Your task to perform on an android device: Go to Wikipedia Image 0: 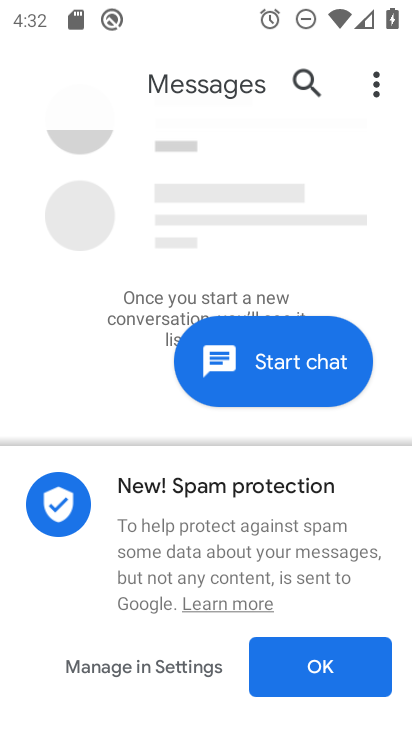
Step 0: press home button
Your task to perform on an android device: Go to Wikipedia Image 1: 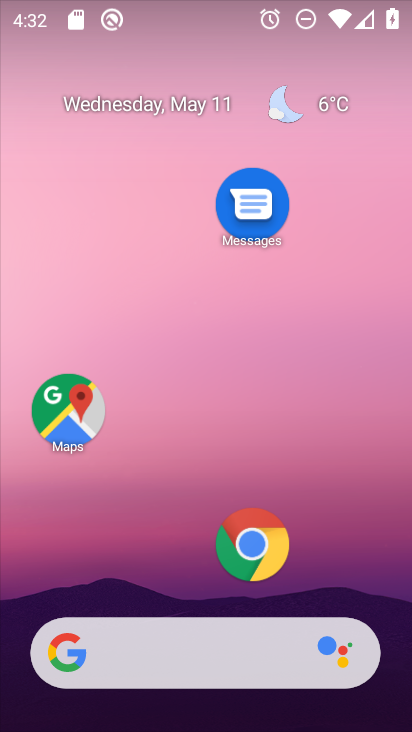
Step 1: click (258, 544)
Your task to perform on an android device: Go to Wikipedia Image 2: 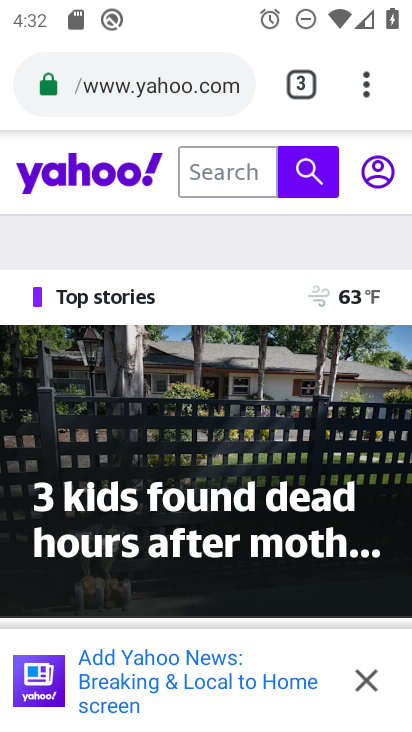
Step 2: click (293, 84)
Your task to perform on an android device: Go to Wikipedia Image 3: 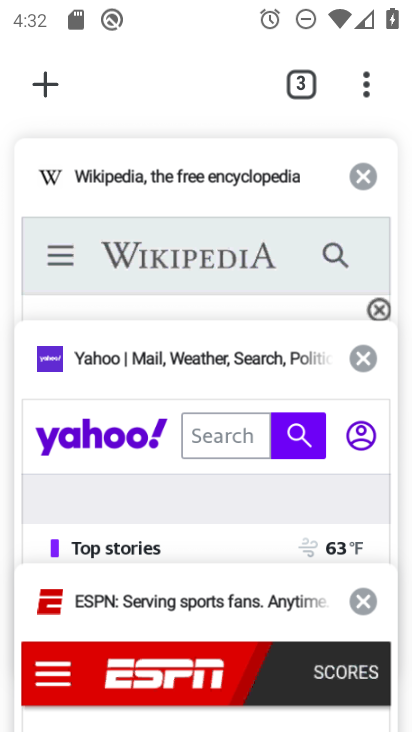
Step 3: click (161, 185)
Your task to perform on an android device: Go to Wikipedia Image 4: 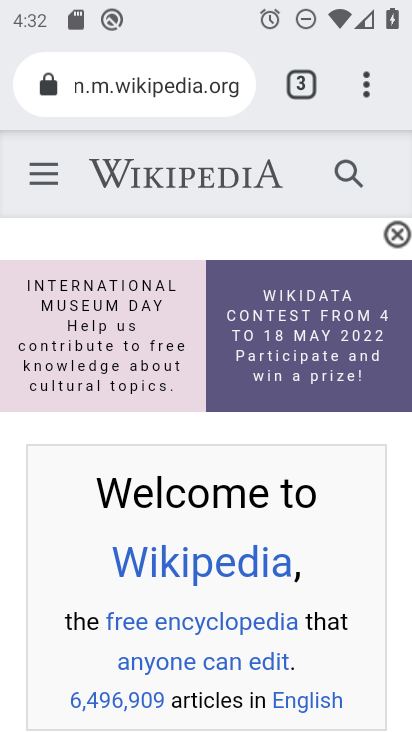
Step 4: task complete